Your task to perform on an android device: turn off javascript in the chrome app Image 0: 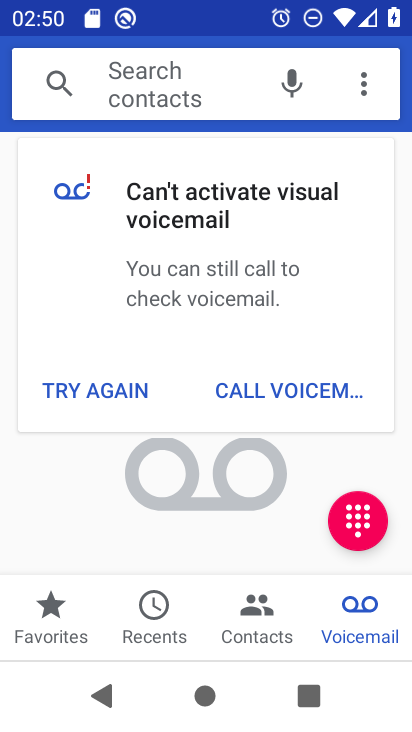
Step 0: press home button
Your task to perform on an android device: turn off javascript in the chrome app Image 1: 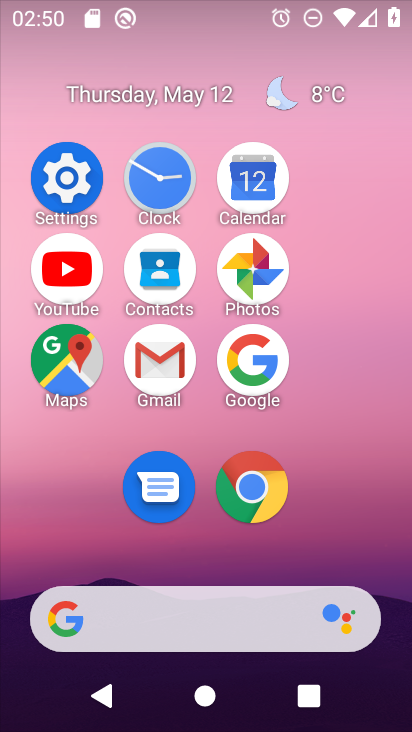
Step 1: click (274, 474)
Your task to perform on an android device: turn off javascript in the chrome app Image 2: 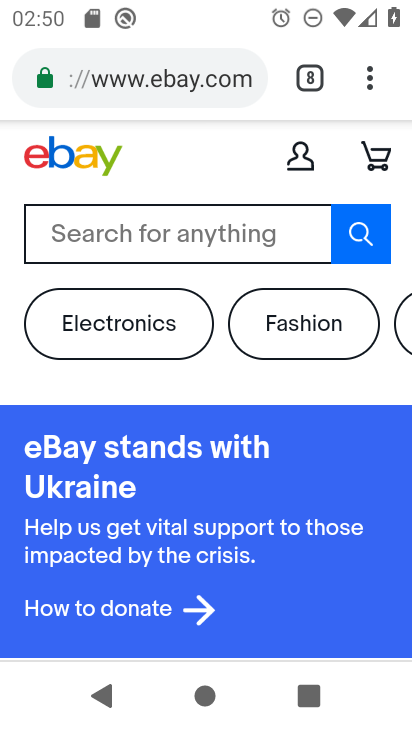
Step 2: click (377, 89)
Your task to perform on an android device: turn off javascript in the chrome app Image 3: 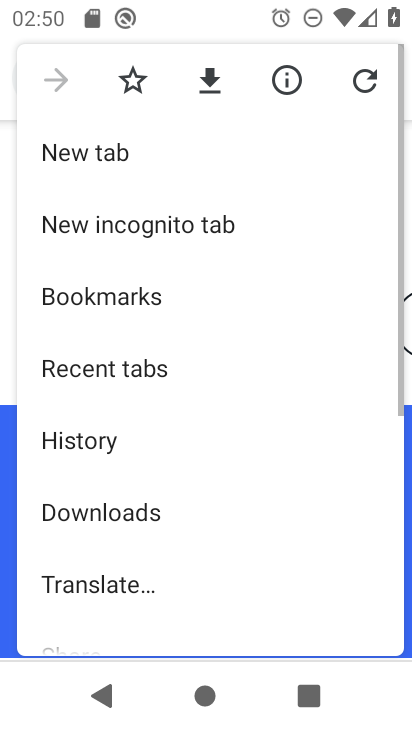
Step 3: drag from (217, 583) to (247, 199)
Your task to perform on an android device: turn off javascript in the chrome app Image 4: 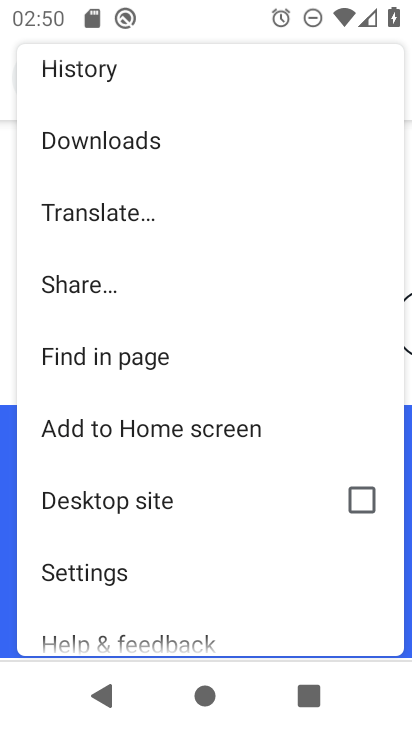
Step 4: click (118, 569)
Your task to perform on an android device: turn off javascript in the chrome app Image 5: 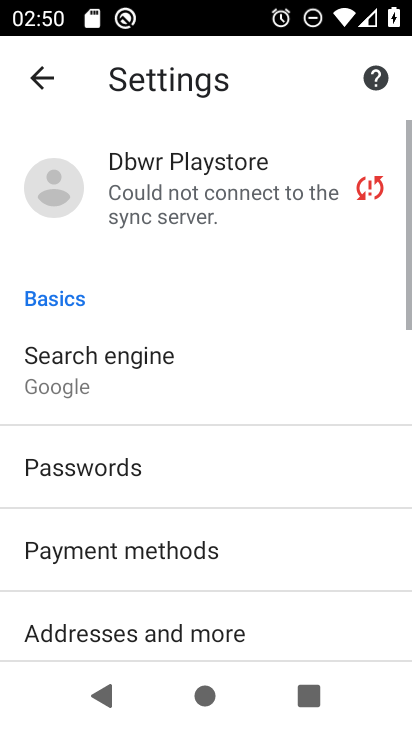
Step 5: drag from (199, 434) to (244, 160)
Your task to perform on an android device: turn off javascript in the chrome app Image 6: 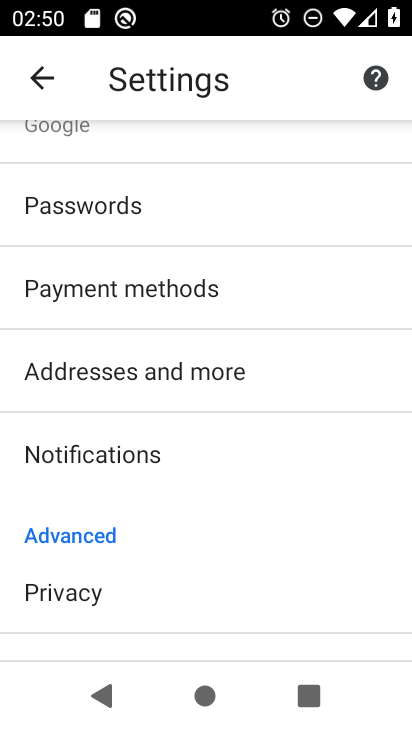
Step 6: drag from (180, 540) to (225, 182)
Your task to perform on an android device: turn off javascript in the chrome app Image 7: 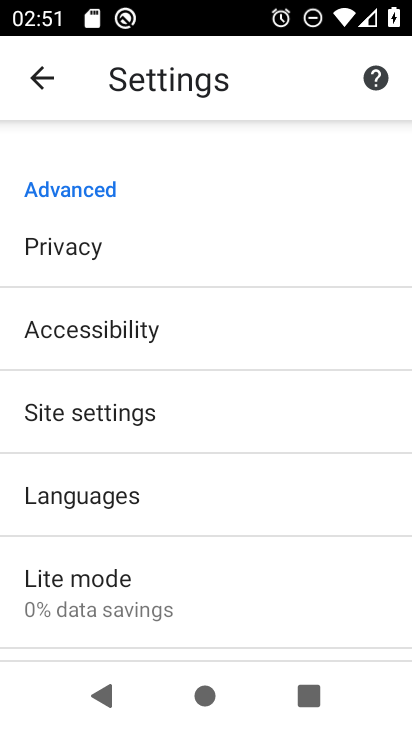
Step 7: drag from (195, 478) to (222, 218)
Your task to perform on an android device: turn off javascript in the chrome app Image 8: 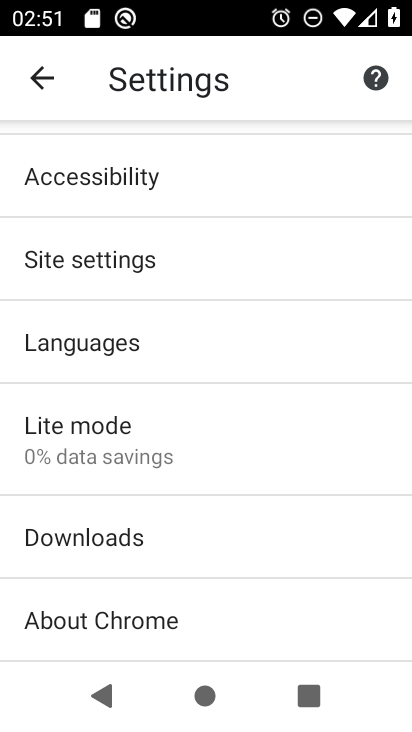
Step 8: click (252, 272)
Your task to perform on an android device: turn off javascript in the chrome app Image 9: 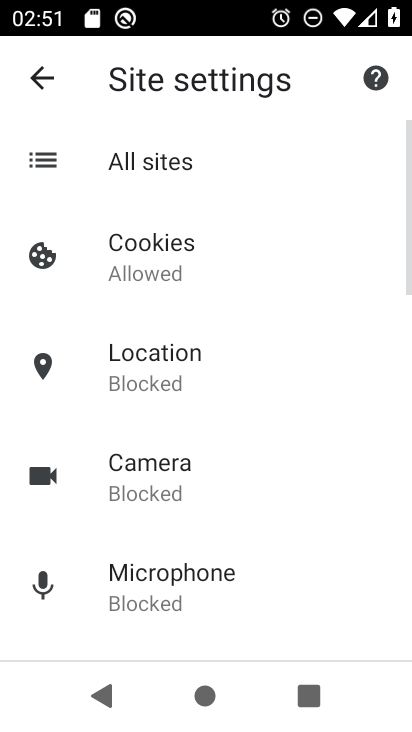
Step 9: drag from (207, 533) to (237, 251)
Your task to perform on an android device: turn off javascript in the chrome app Image 10: 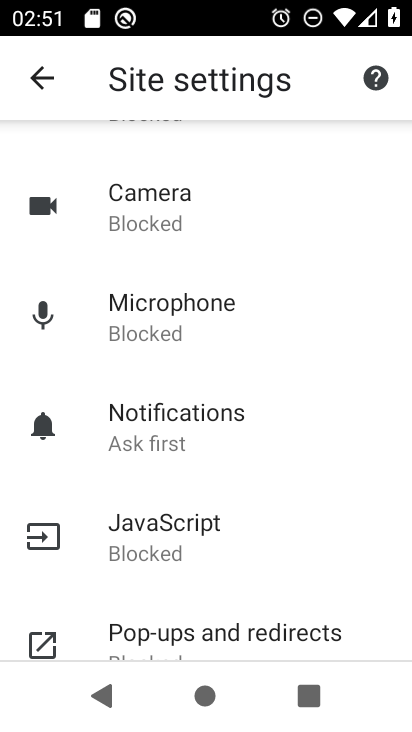
Step 10: click (196, 526)
Your task to perform on an android device: turn off javascript in the chrome app Image 11: 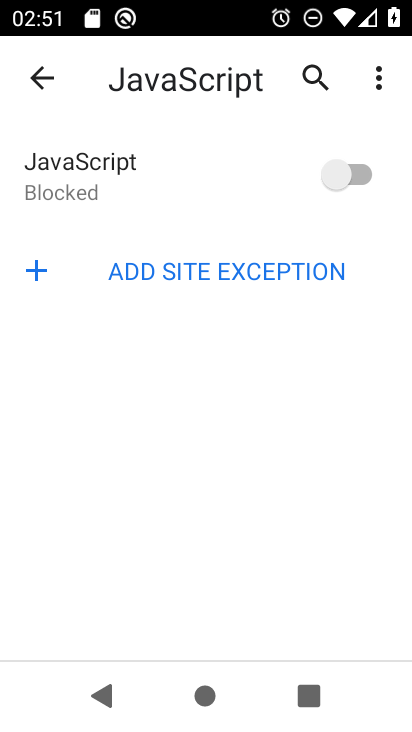
Step 11: task complete